Your task to perform on an android device: Empty the shopping cart on costco. Add razer thresher to the cart on costco Image 0: 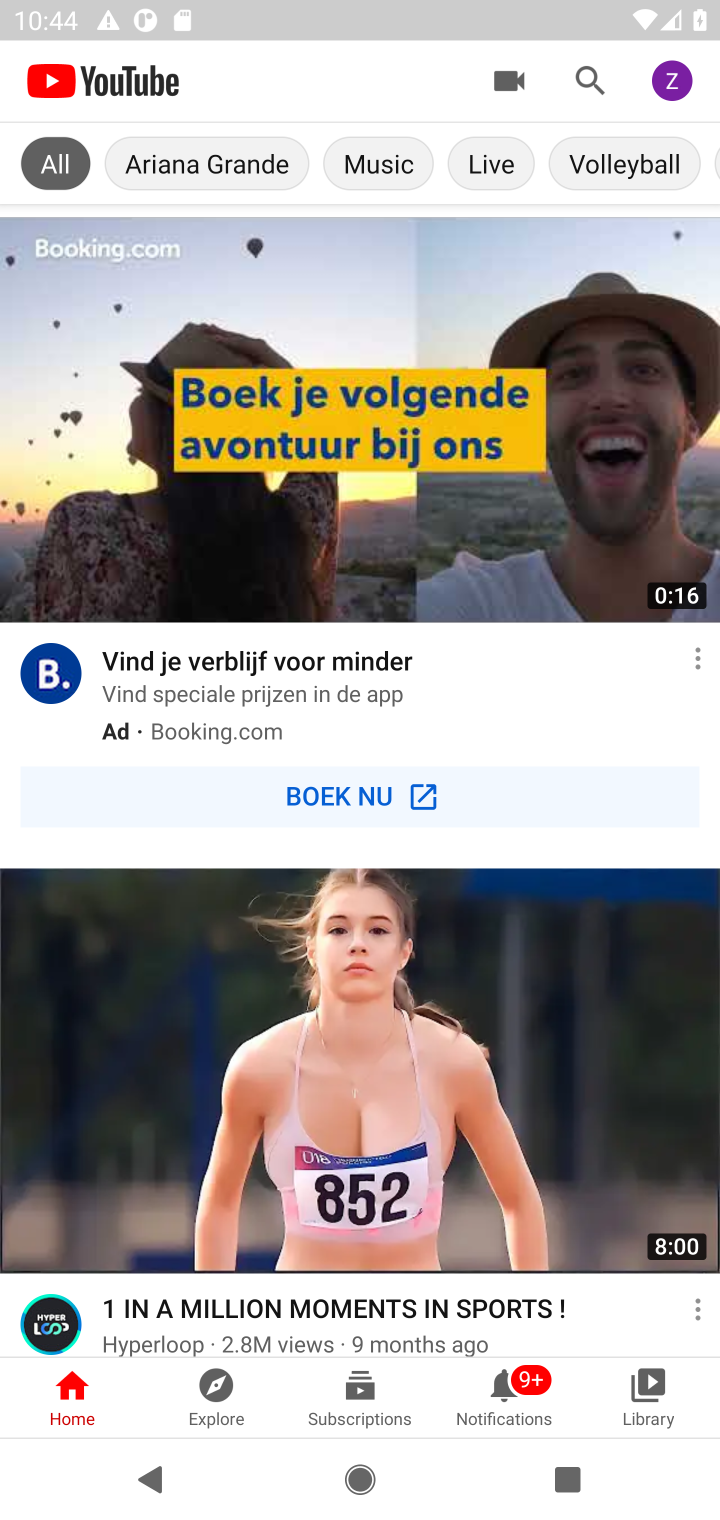
Step 0: press home button
Your task to perform on an android device: Empty the shopping cart on costco. Add razer thresher to the cart on costco Image 1: 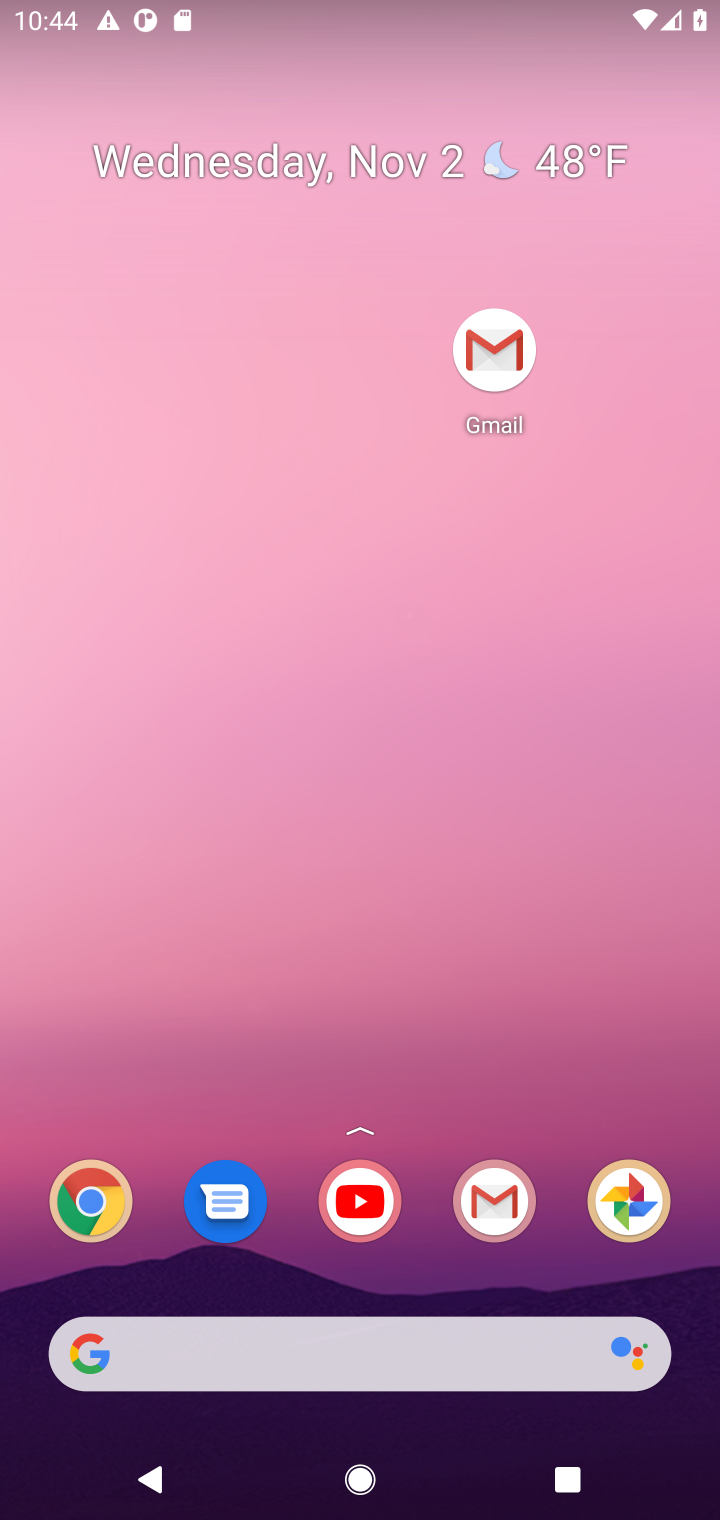
Step 1: drag from (361, 1027) to (355, 774)
Your task to perform on an android device: Empty the shopping cart on costco. Add razer thresher to the cart on costco Image 2: 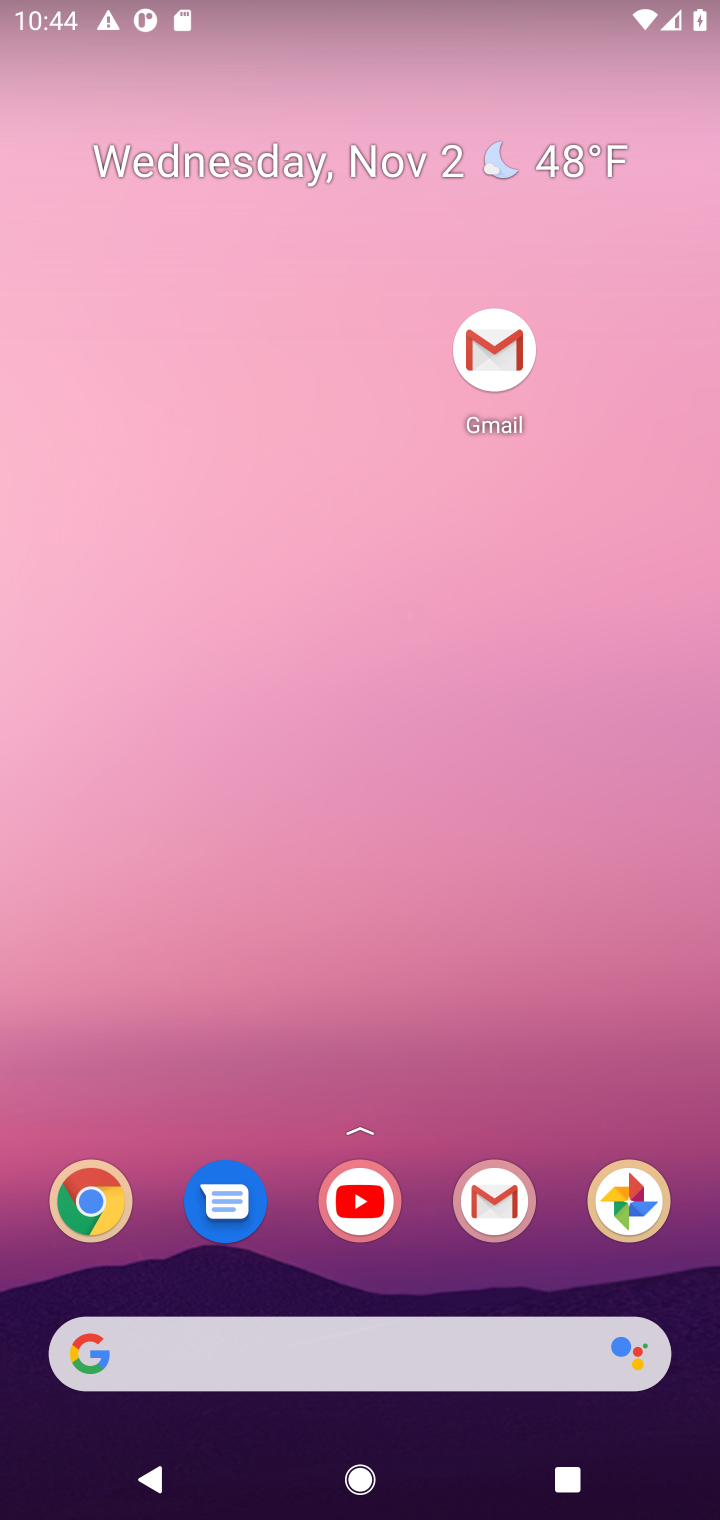
Step 2: drag from (419, 1159) to (464, 361)
Your task to perform on an android device: Empty the shopping cart on costco. Add razer thresher to the cart on costco Image 3: 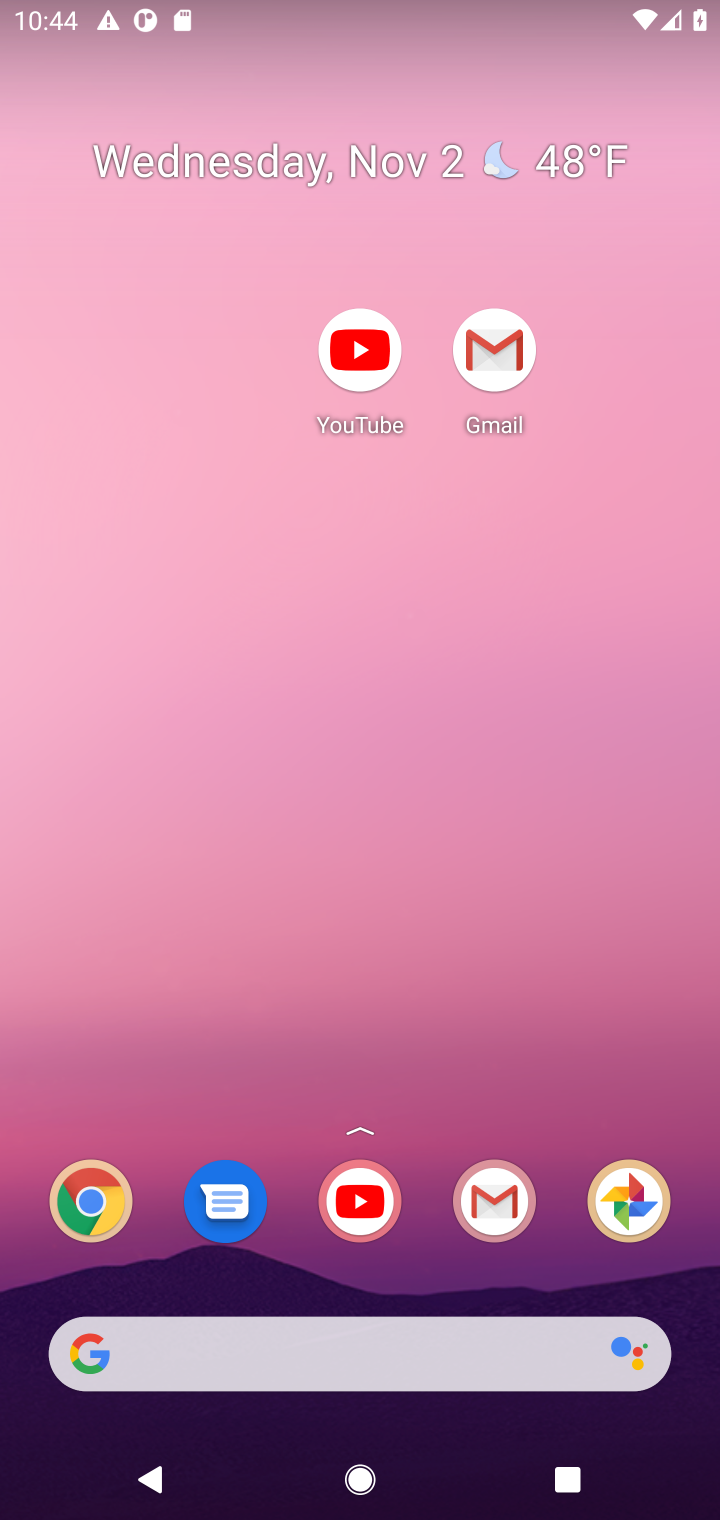
Step 3: drag from (418, 1261) to (308, 264)
Your task to perform on an android device: Empty the shopping cart on costco. Add razer thresher to the cart on costco Image 4: 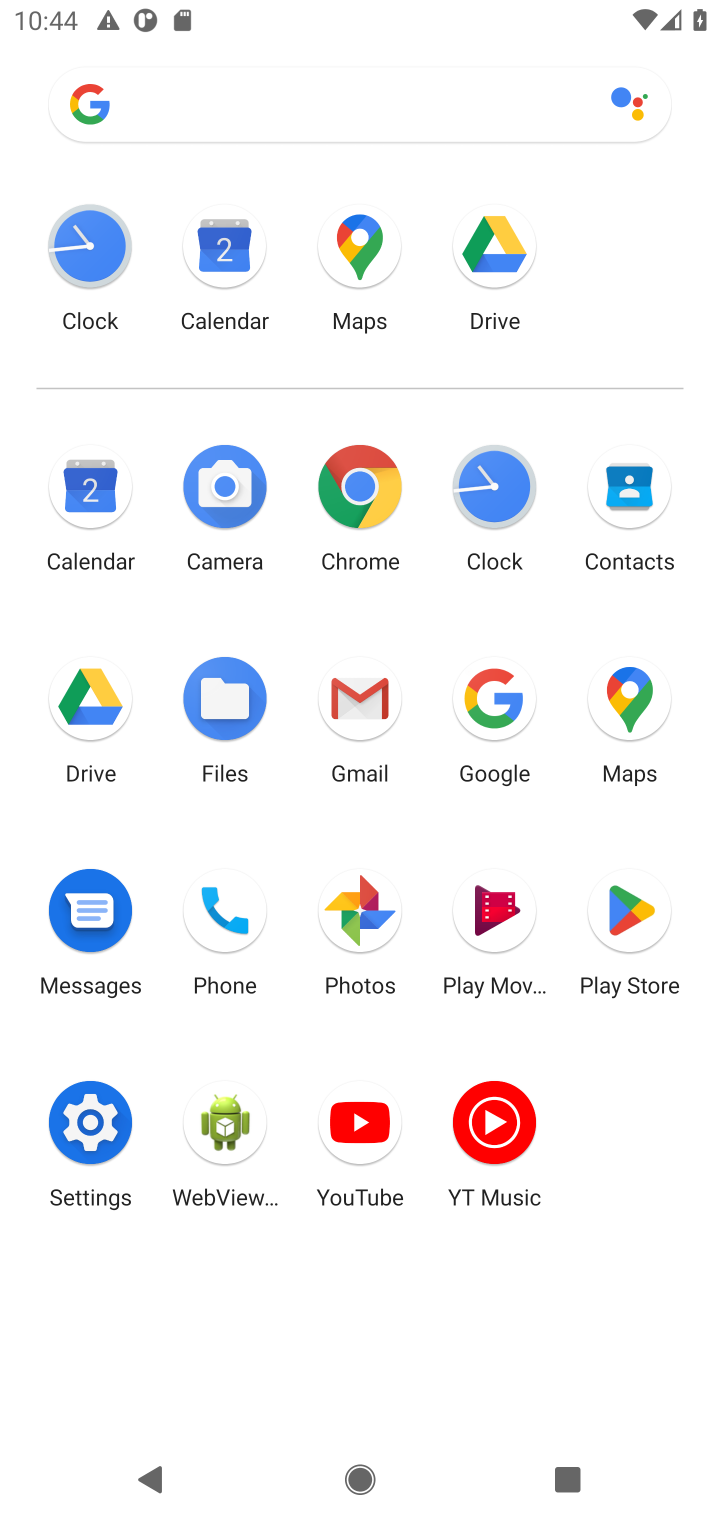
Step 4: click (347, 493)
Your task to perform on an android device: Empty the shopping cart on costco. Add razer thresher to the cart on costco Image 5: 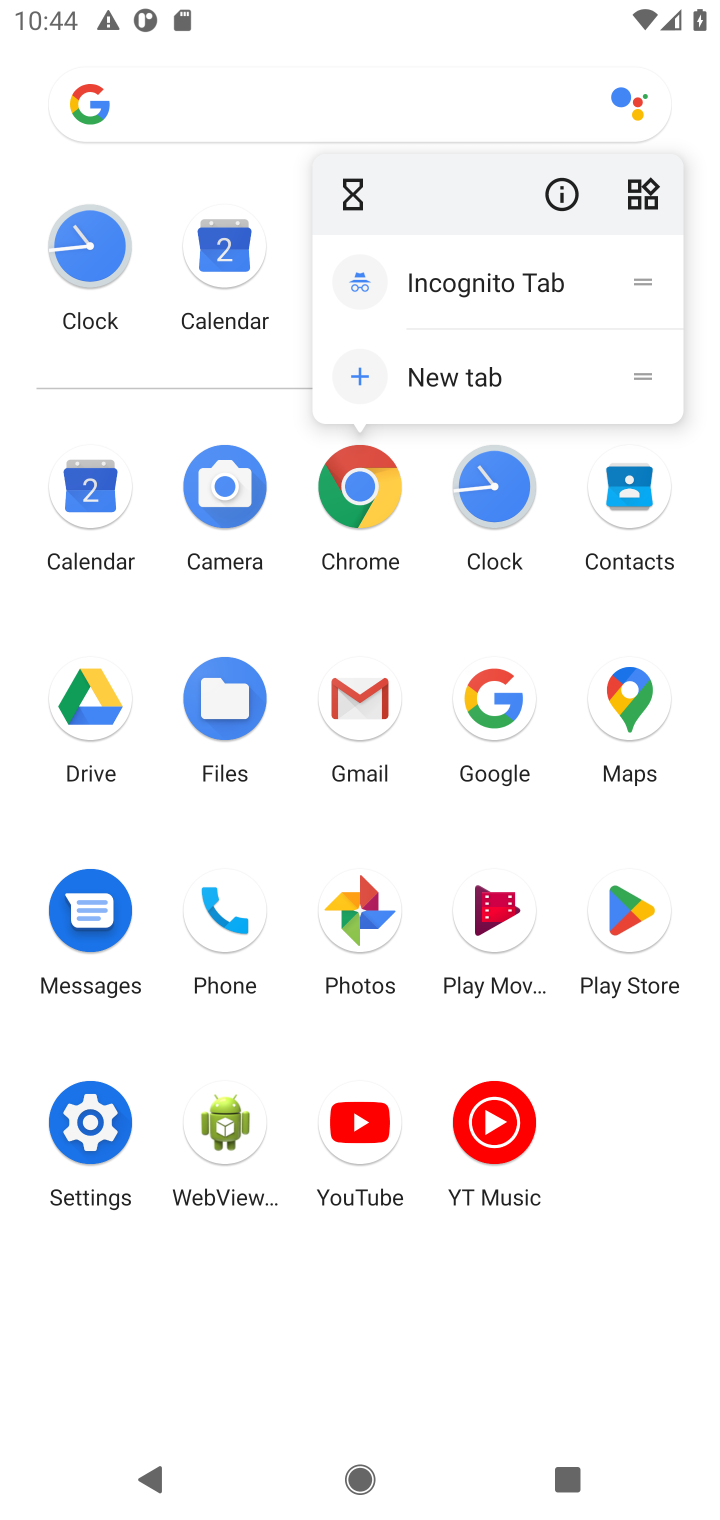
Step 5: click (364, 491)
Your task to perform on an android device: Empty the shopping cart on costco. Add razer thresher to the cart on costco Image 6: 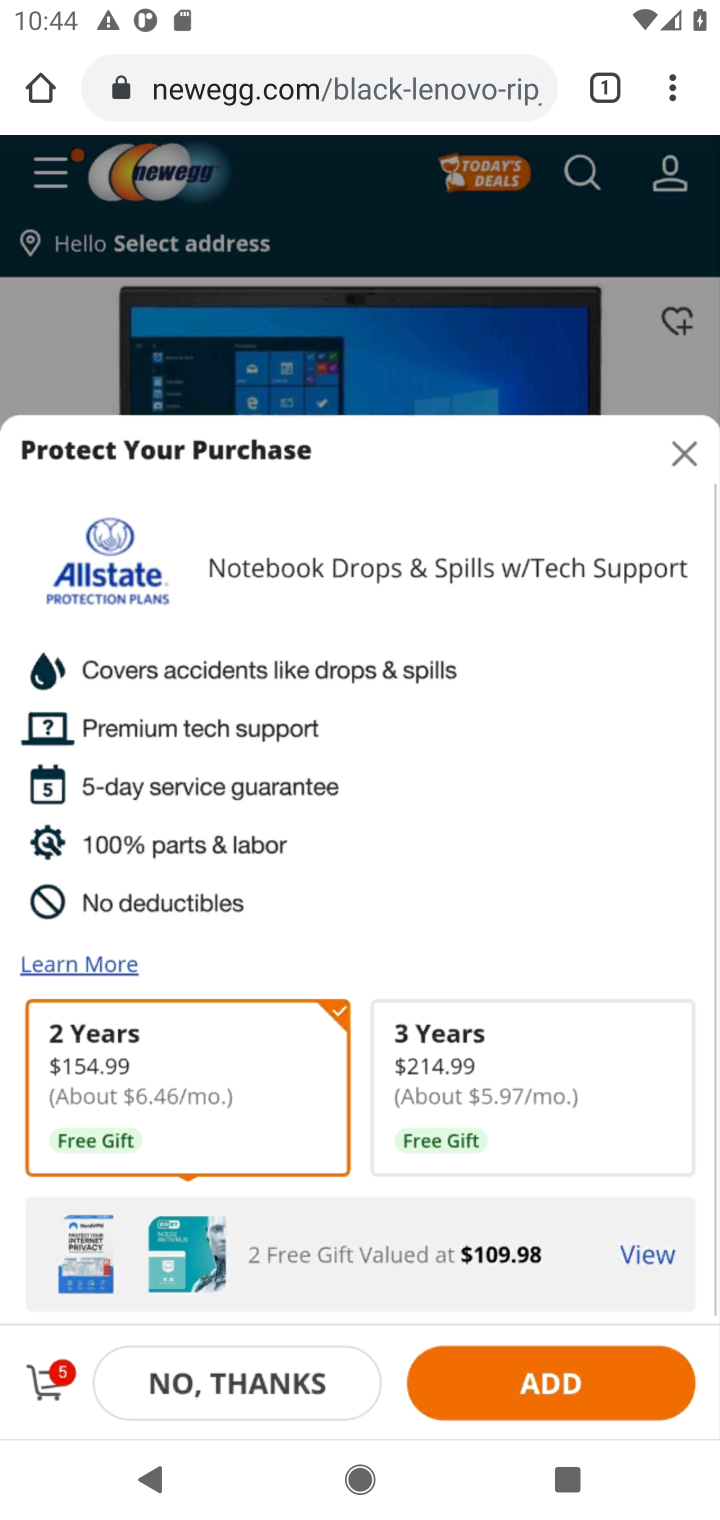
Step 6: click (330, 98)
Your task to perform on an android device: Empty the shopping cart on costco. Add razer thresher to the cart on costco Image 7: 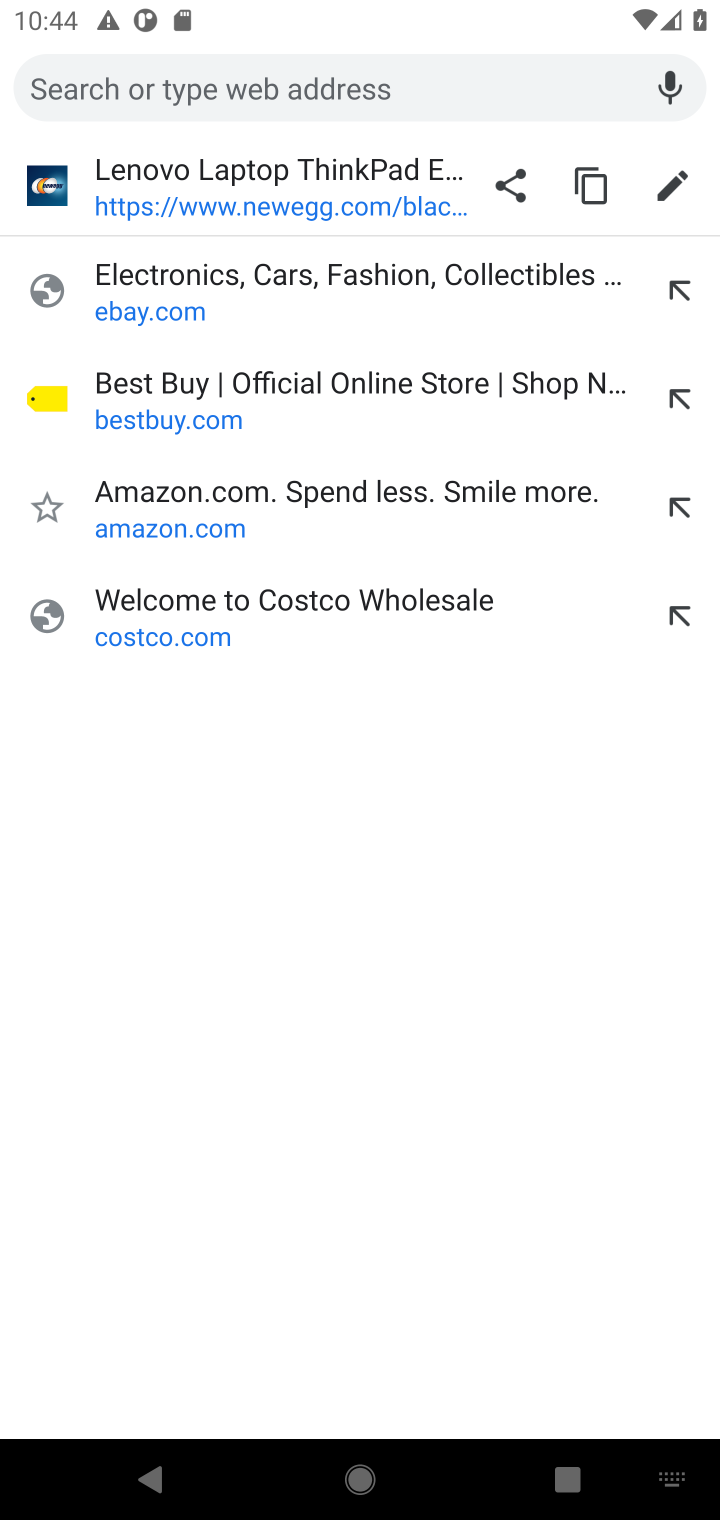
Step 7: type "costco.com"
Your task to perform on an android device: Empty the shopping cart on costco. Add razer thresher to the cart on costco Image 8: 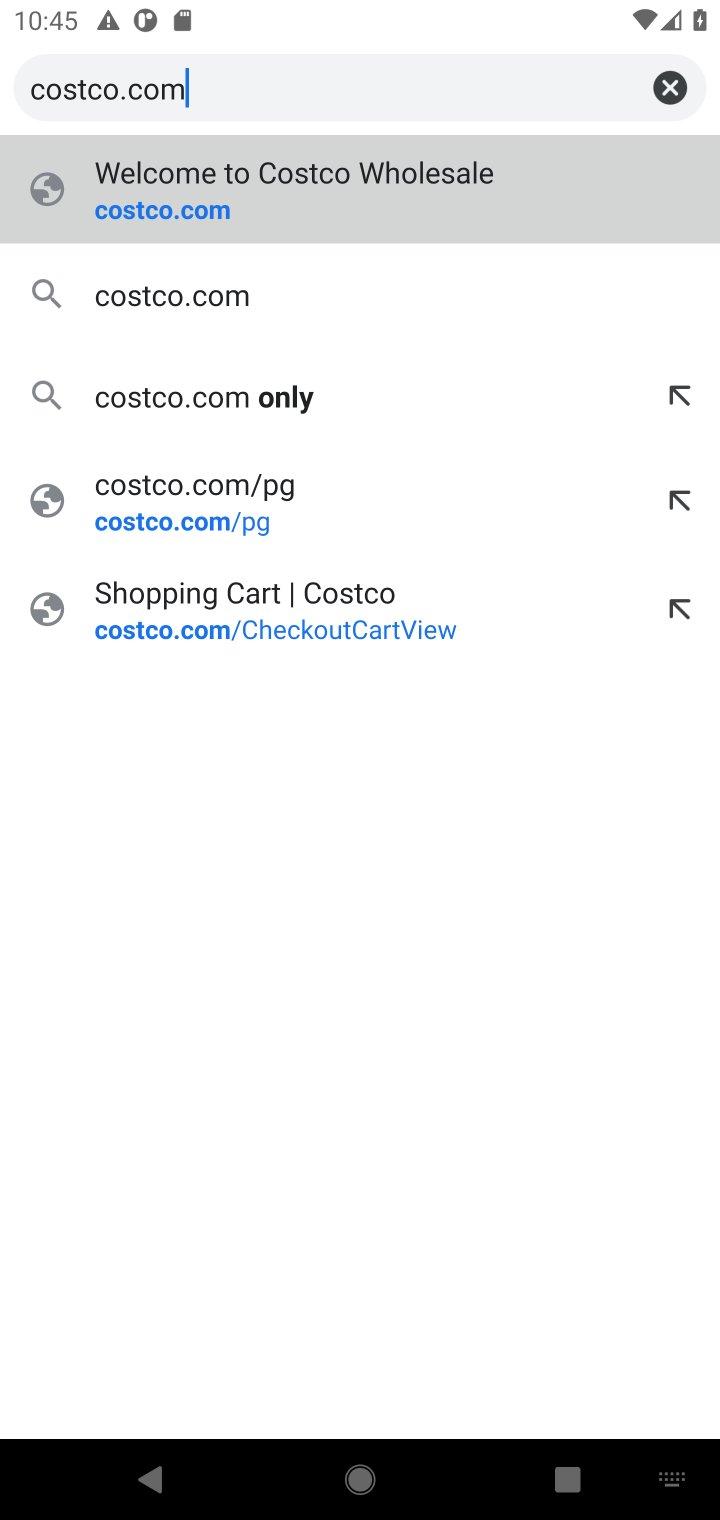
Step 8: press enter
Your task to perform on an android device: Empty the shopping cart on costco. Add razer thresher to the cart on costco Image 9: 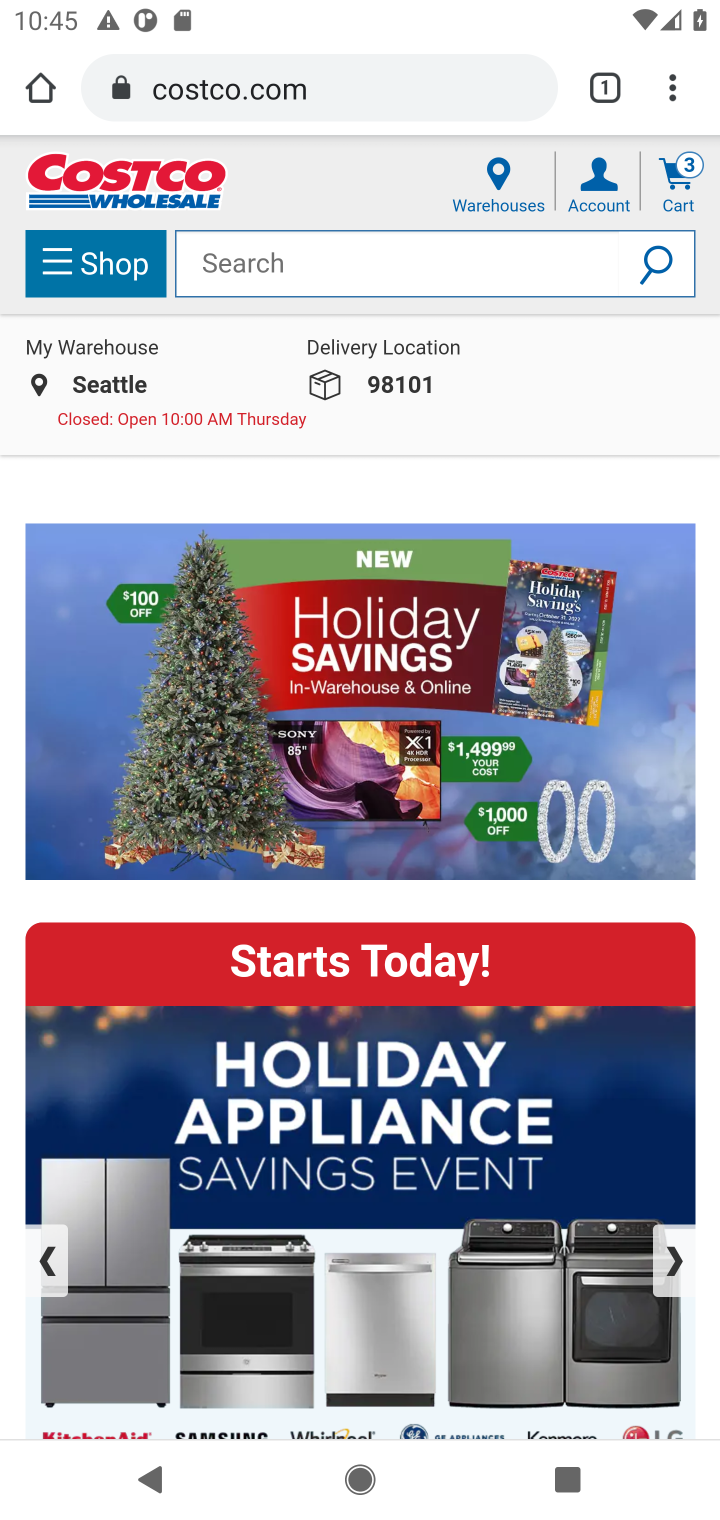
Step 9: click (685, 183)
Your task to perform on an android device: Empty the shopping cart on costco. Add razer thresher to the cart on costco Image 10: 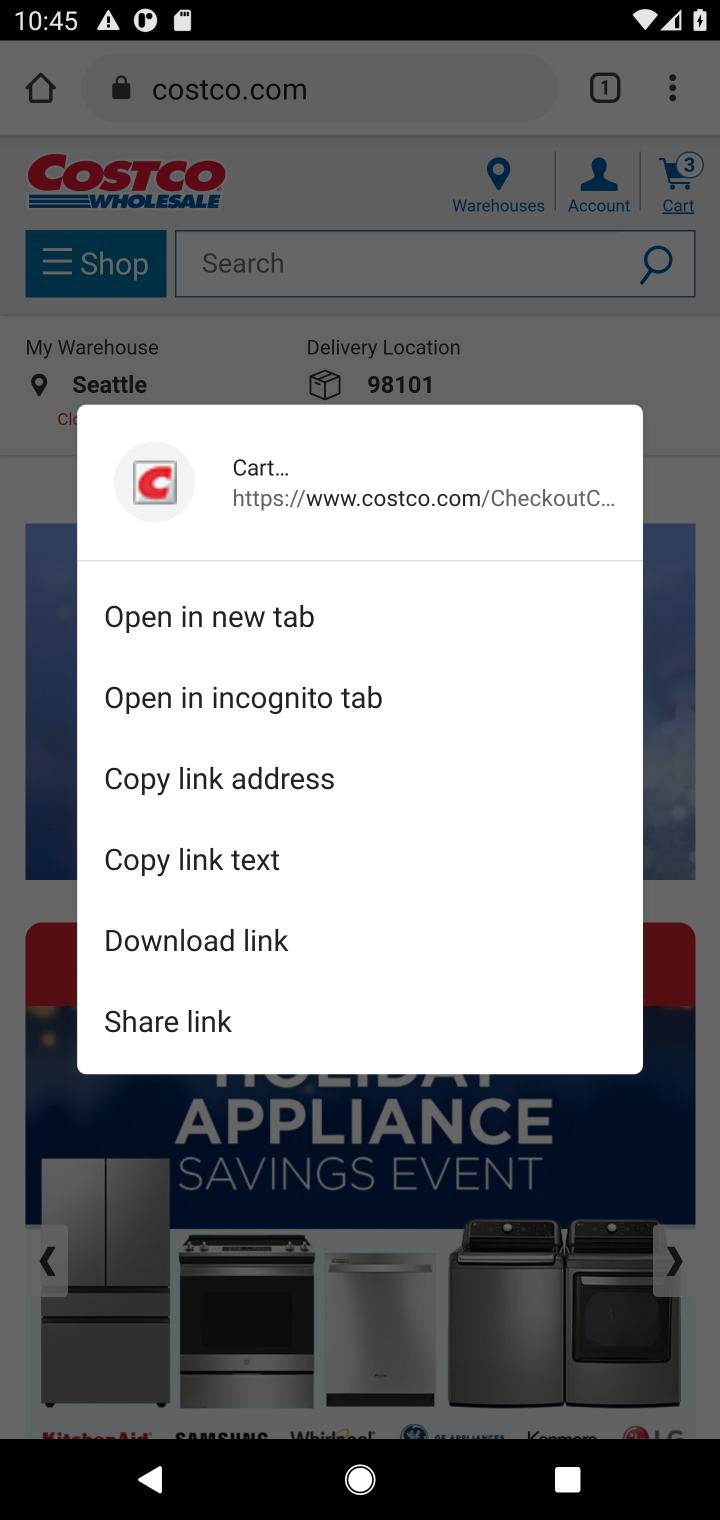
Step 10: click (685, 183)
Your task to perform on an android device: Empty the shopping cart on costco. Add razer thresher to the cart on costco Image 11: 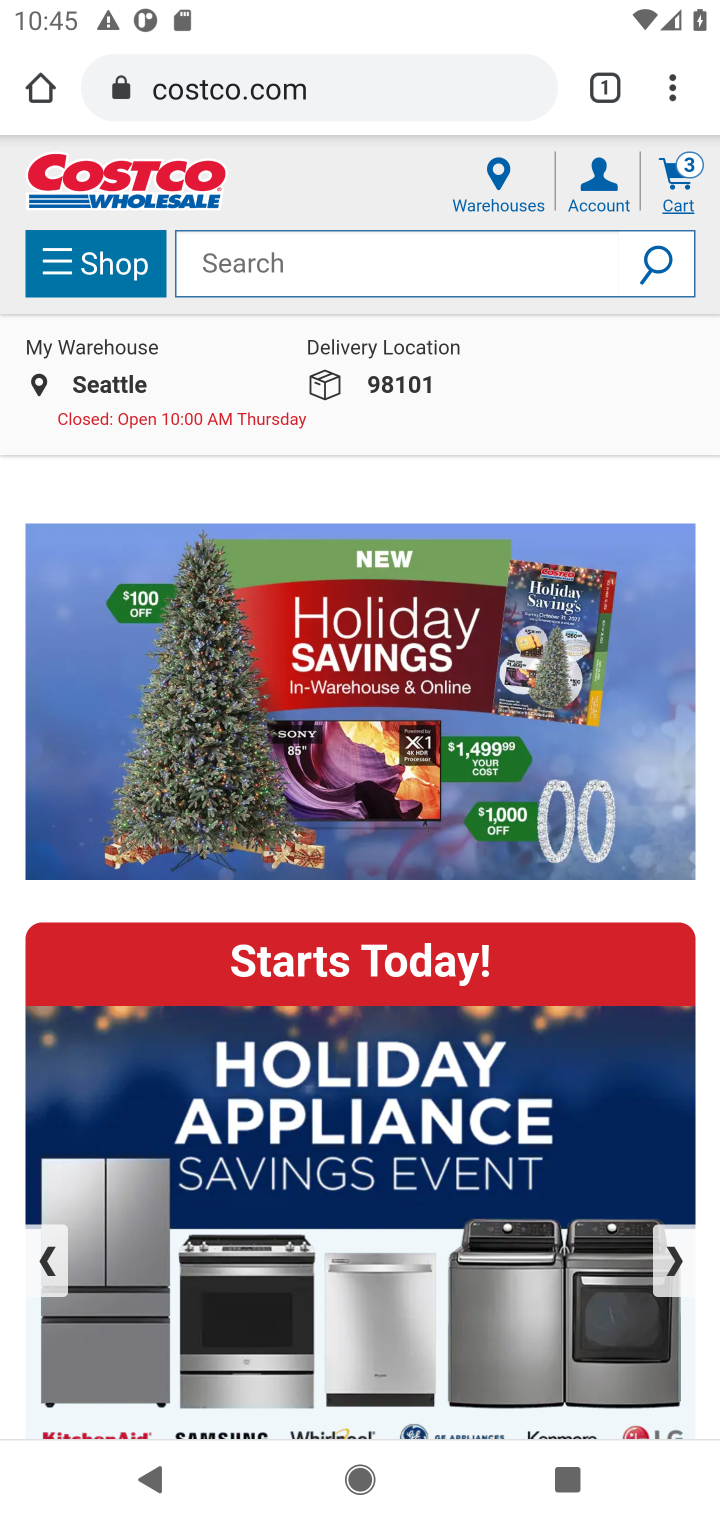
Step 11: click (685, 183)
Your task to perform on an android device: Empty the shopping cart on costco. Add razer thresher to the cart on costco Image 12: 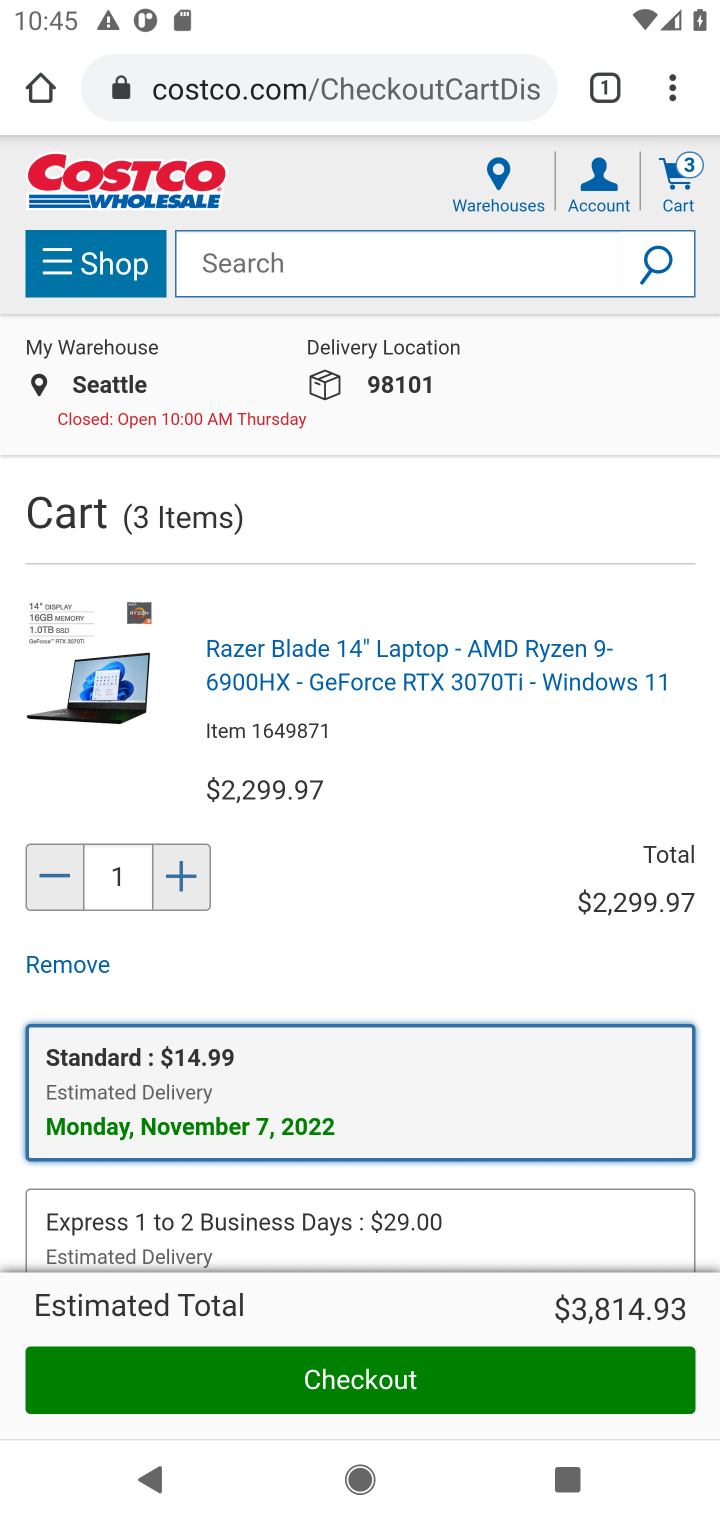
Step 12: click (82, 982)
Your task to perform on an android device: Empty the shopping cart on costco. Add razer thresher to the cart on costco Image 13: 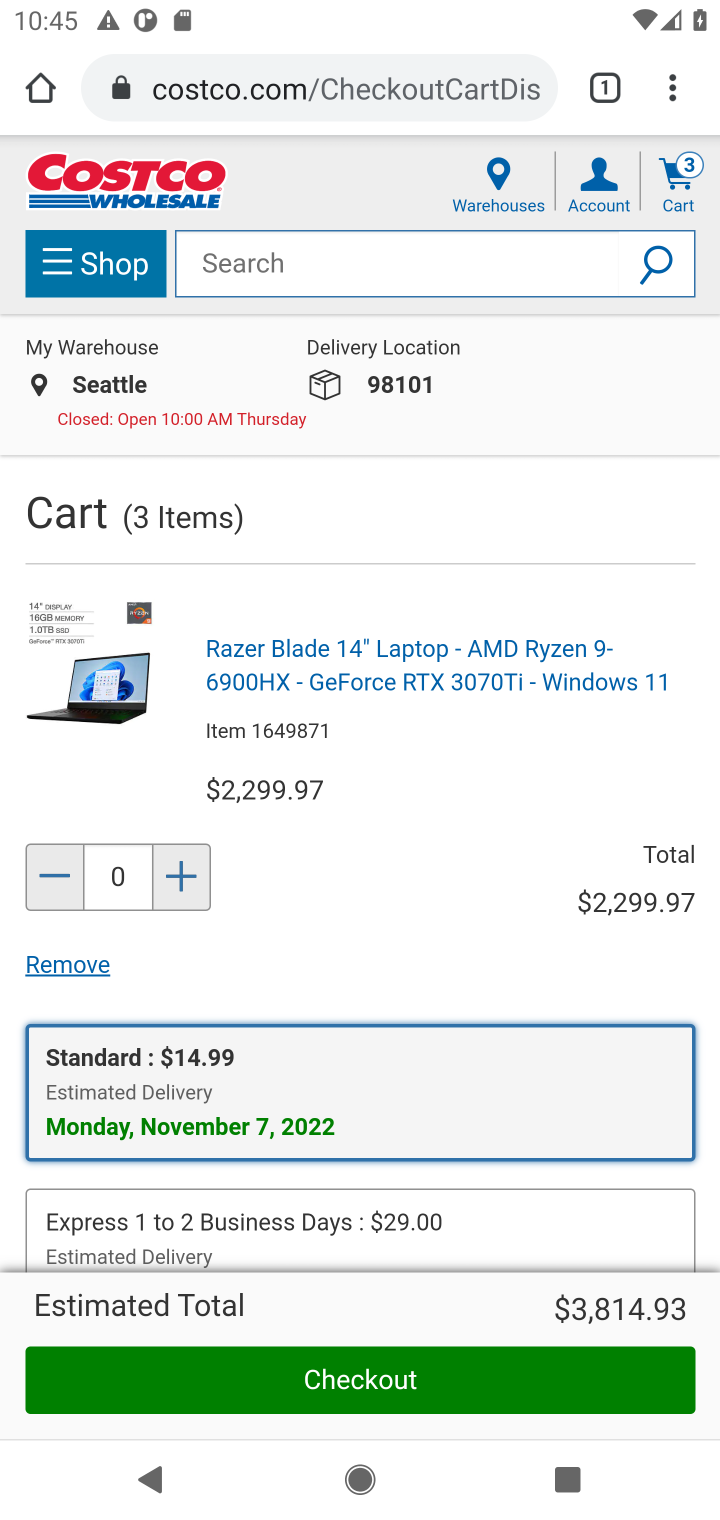
Step 13: click (81, 975)
Your task to perform on an android device: Empty the shopping cart on costco. Add razer thresher to the cart on costco Image 14: 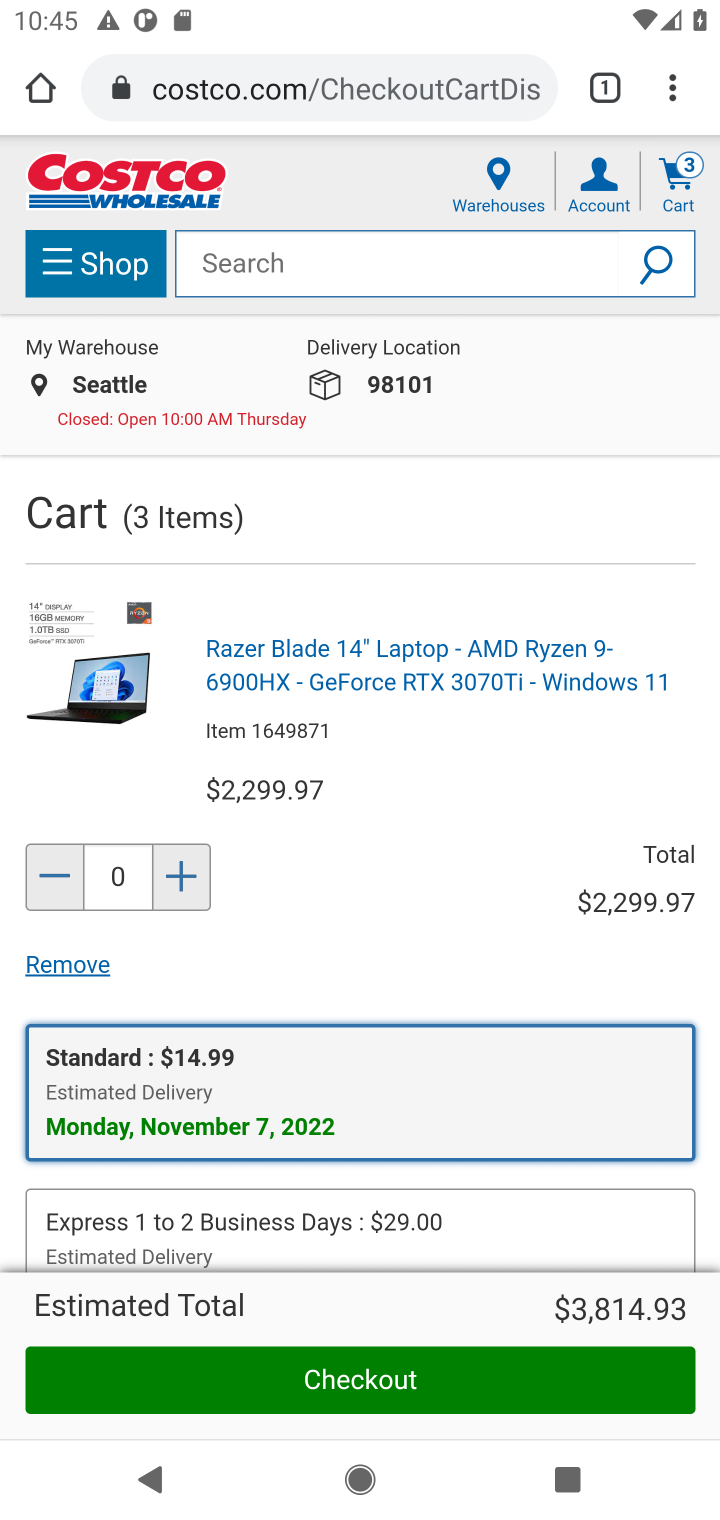
Step 14: click (73, 952)
Your task to perform on an android device: Empty the shopping cart on costco. Add razer thresher to the cart on costco Image 15: 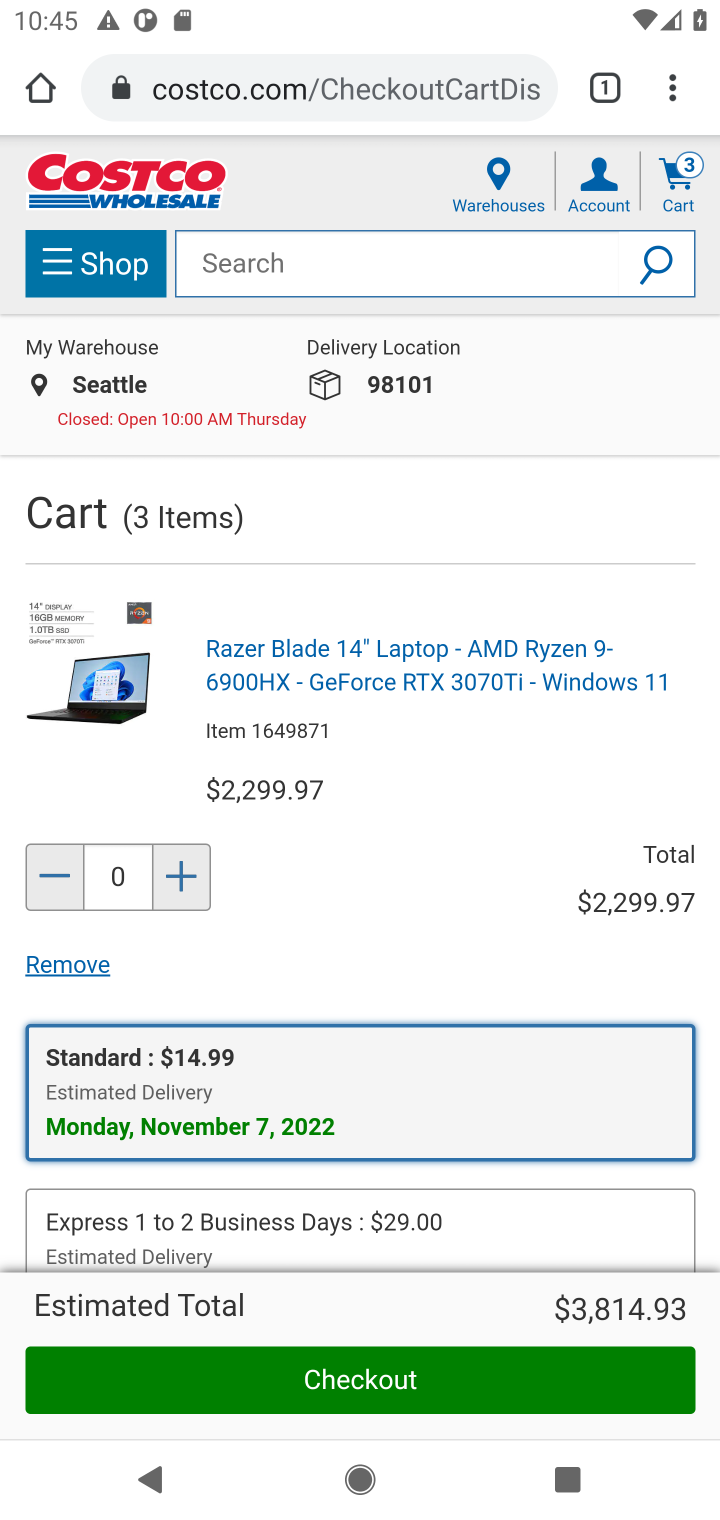
Step 15: click (69, 960)
Your task to perform on an android device: Empty the shopping cart on costco. Add razer thresher to the cart on costco Image 16: 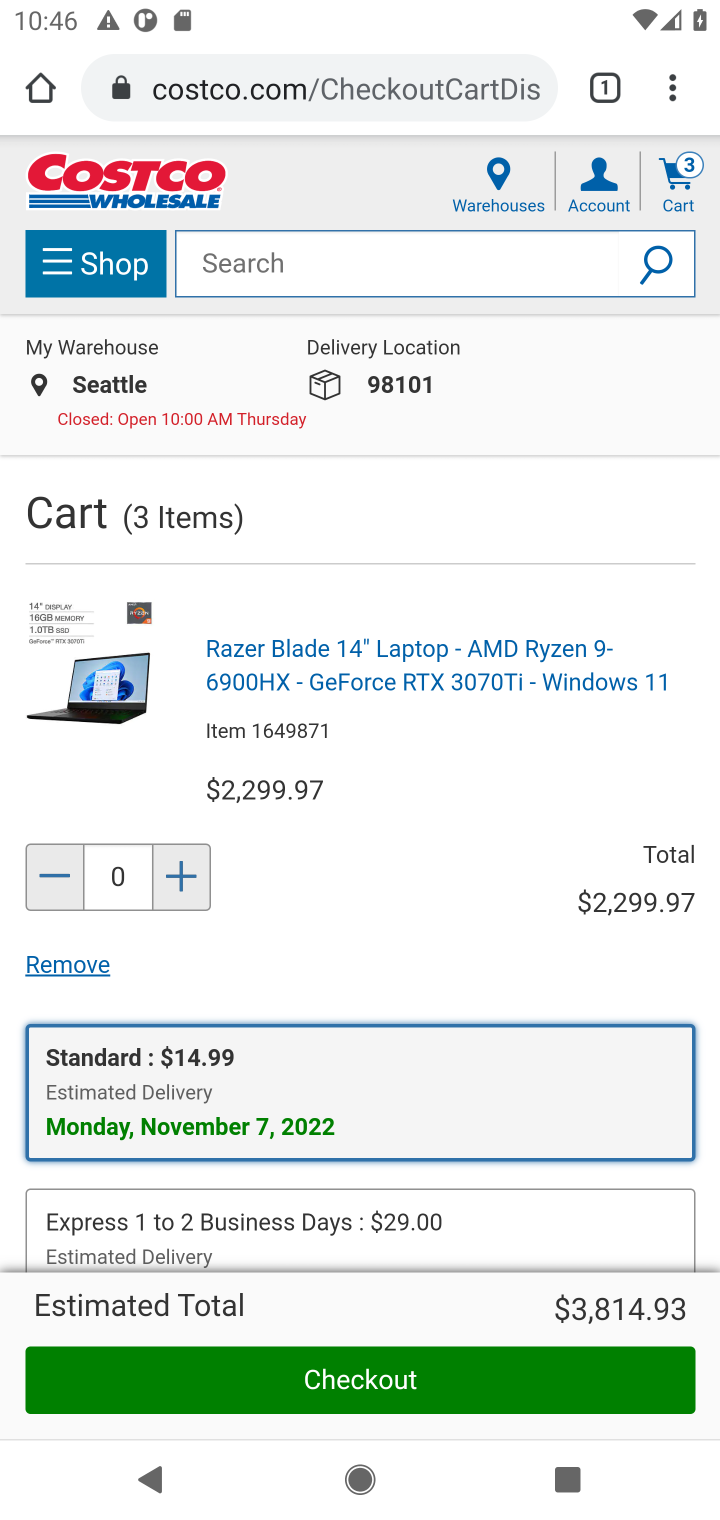
Step 16: click (69, 960)
Your task to perform on an android device: Empty the shopping cart on costco. Add razer thresher to the cart on costco Image 17: 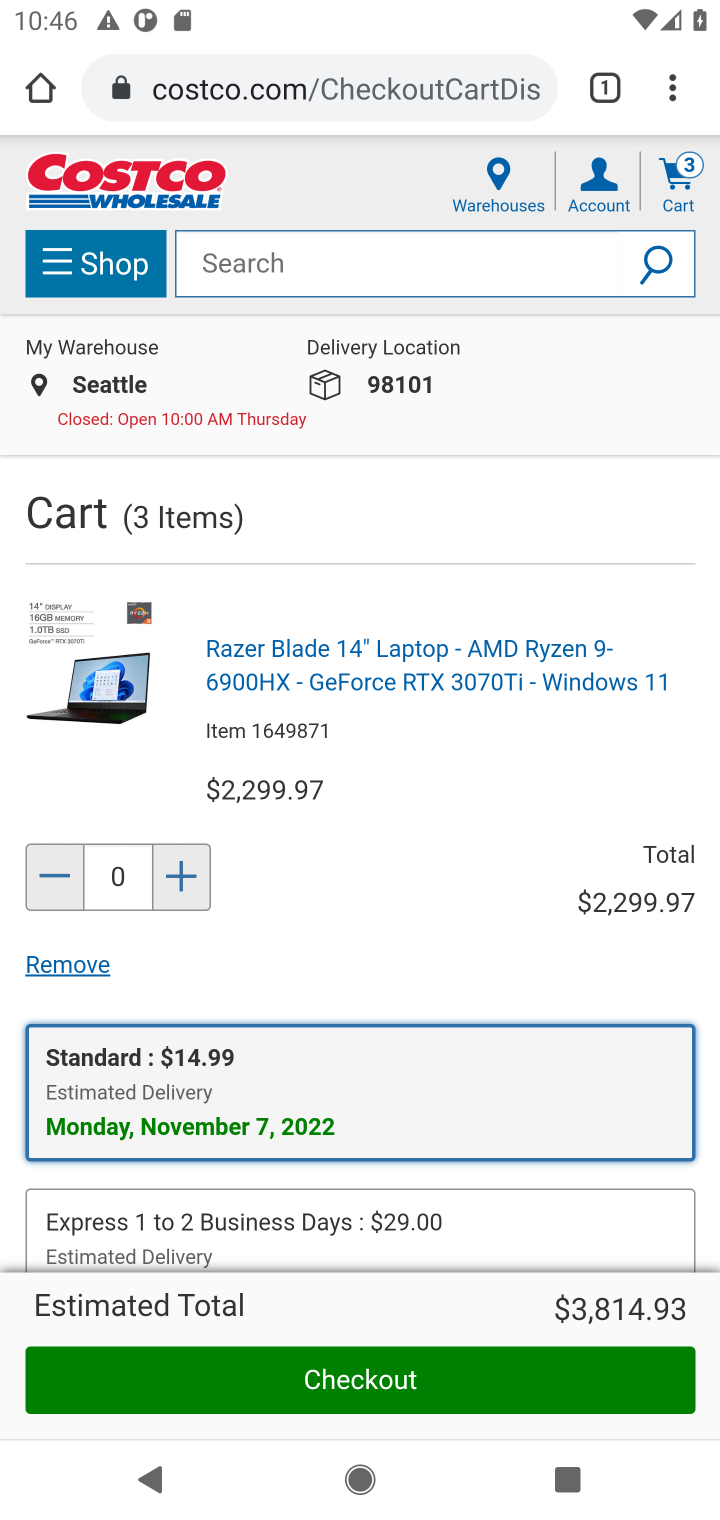
Step 17: click (69, 960)
Your task to perform on an android device: Empty the shopping cart on costco. Add razer thresher to the cart on costco Image 18: 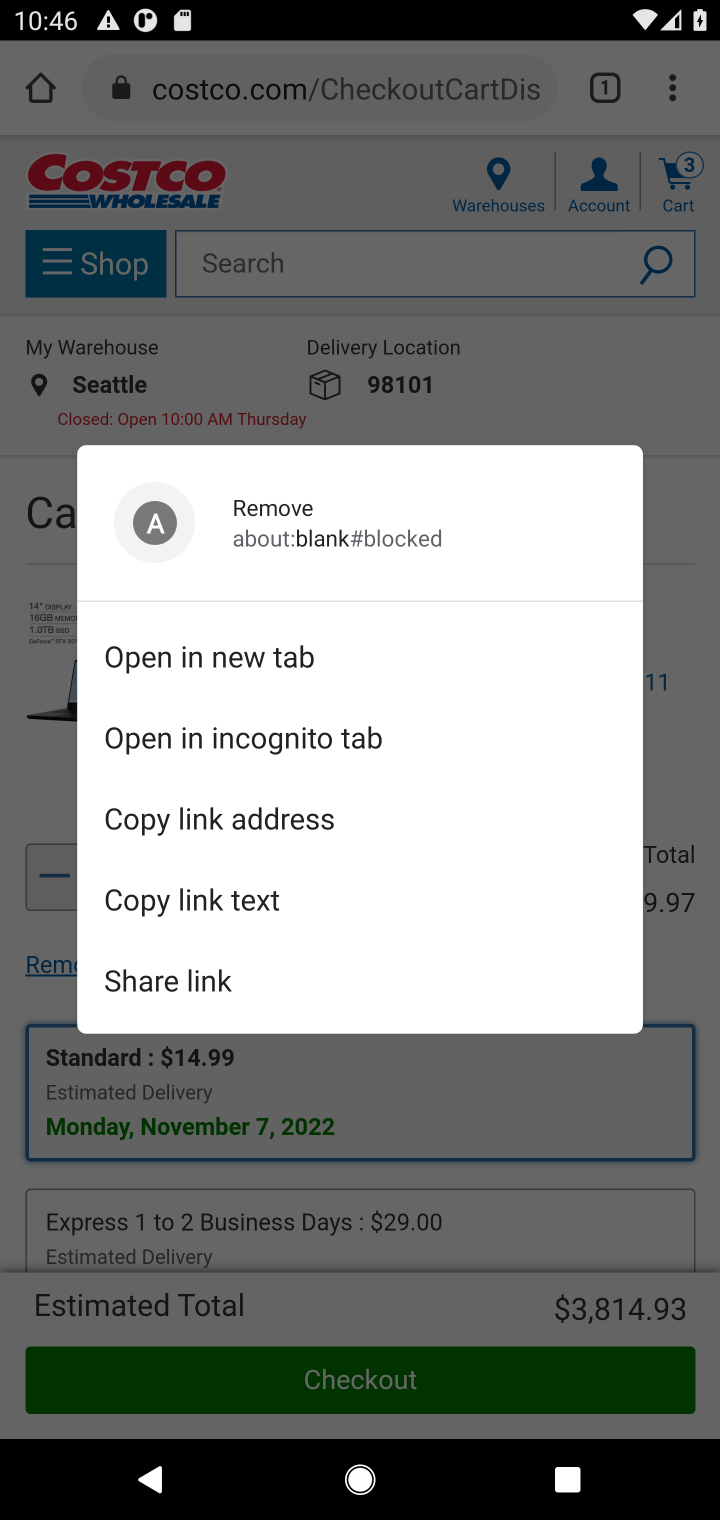
Step 18: click (27, 985)
Your task to perform on an android device: Empty the shopping cart on costco. Add razer thresher to the cart on costco Image 19: 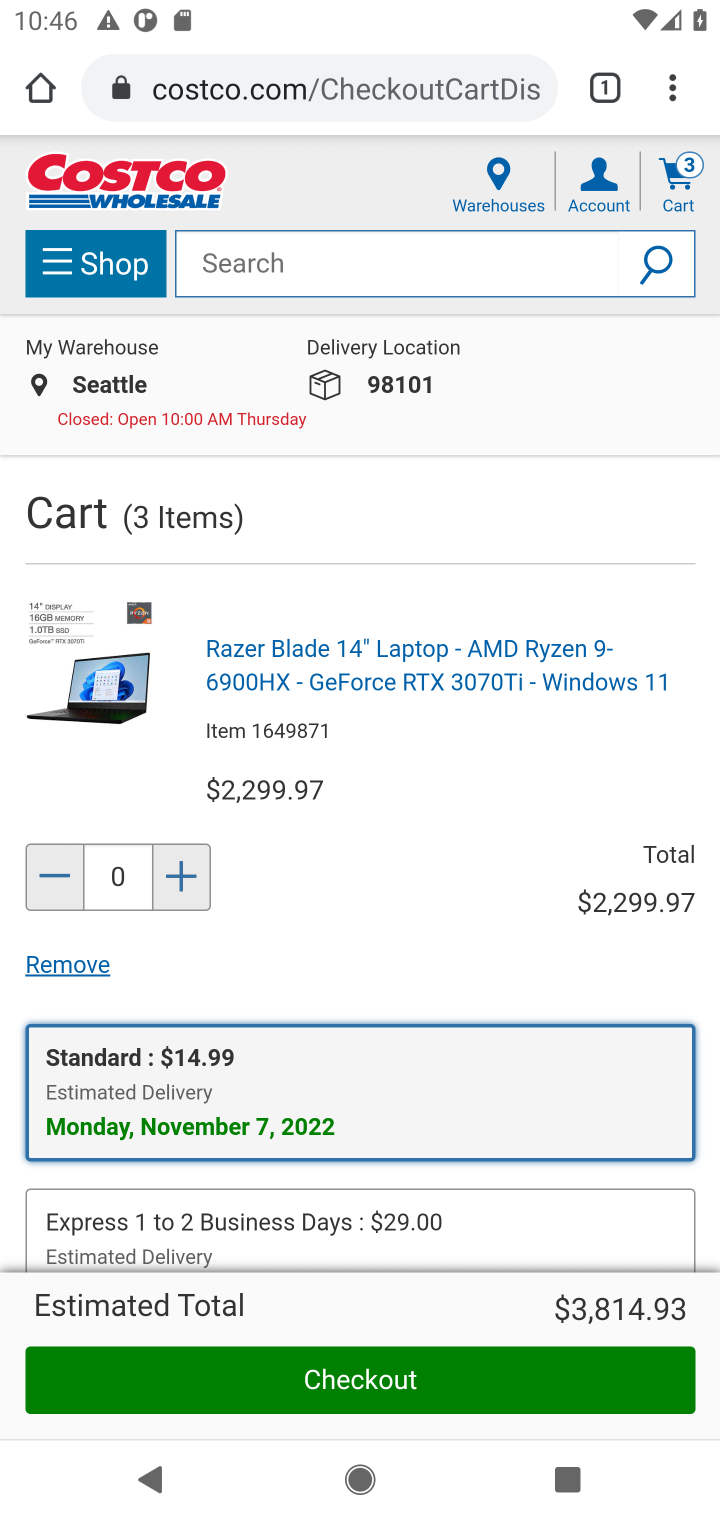
Step 19: click (45, 972)
Your task to perform on an android device: Empty the shopping cart on costco. Add razer thresher to the cart on costco Image 20: 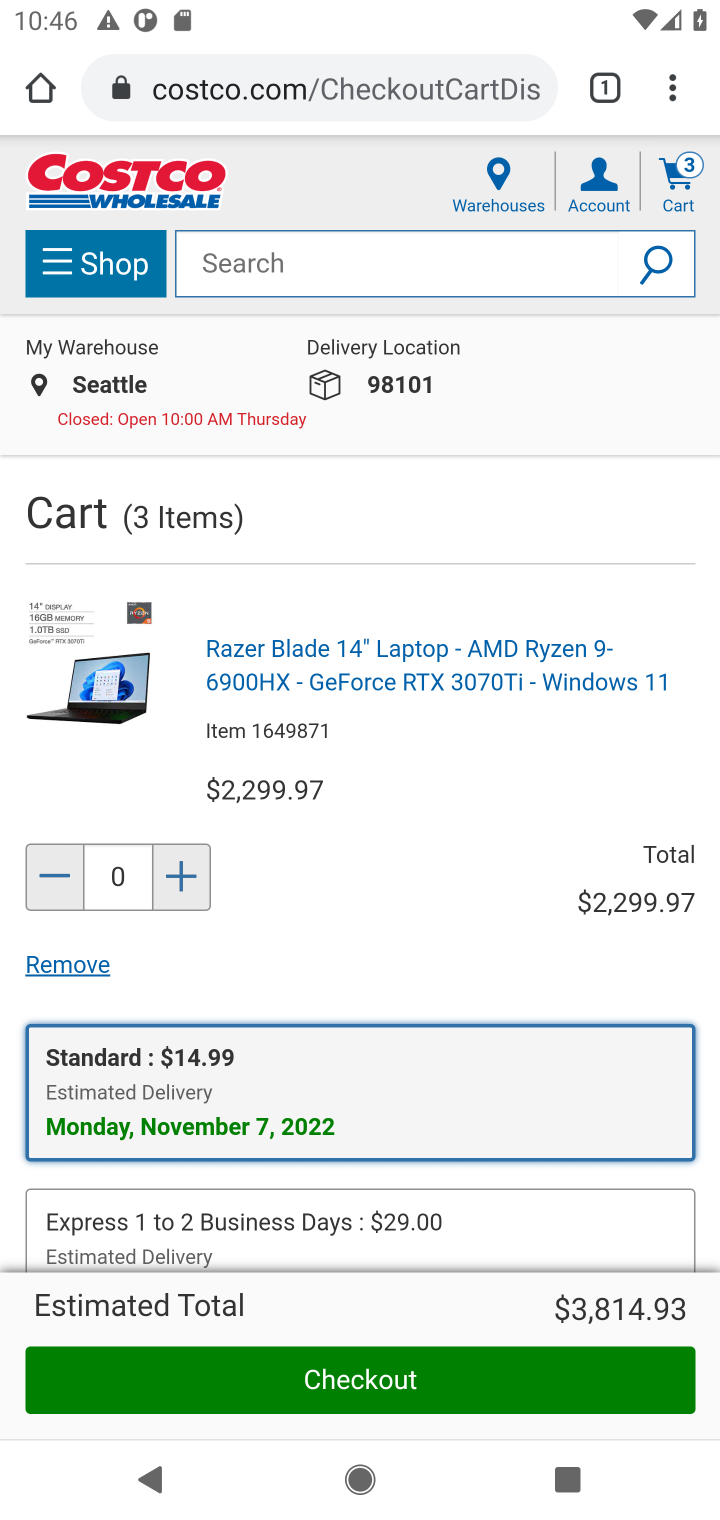
Step 20: click (45, 972)
Your task to perform on an android device: Empty the shopping cart on costco. Add razer thresher to the cart on costco Image 21: 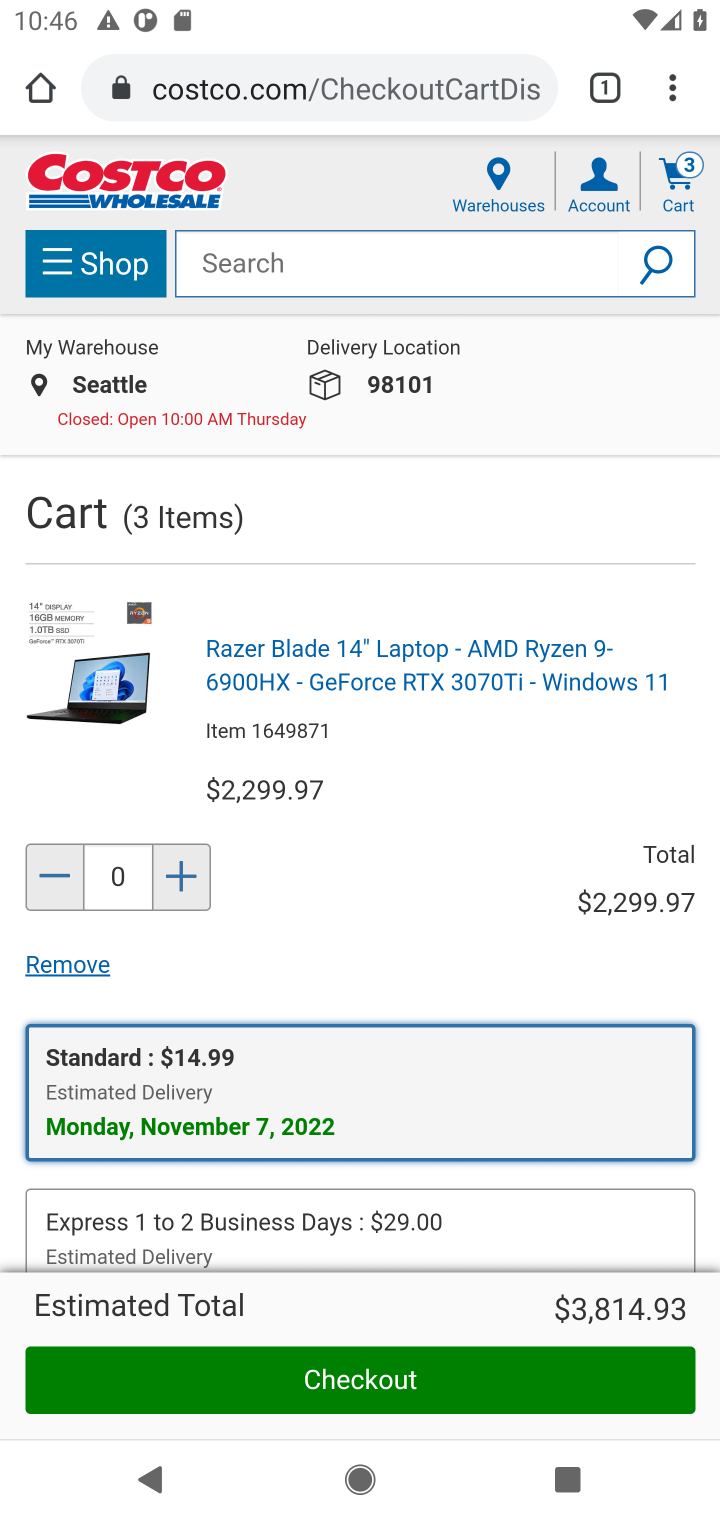
Step 21: click (56, 895)
Your task to perform on an android device: Empty the shopping cart on costco. Add razer thresher to the cart on costco Image 22: 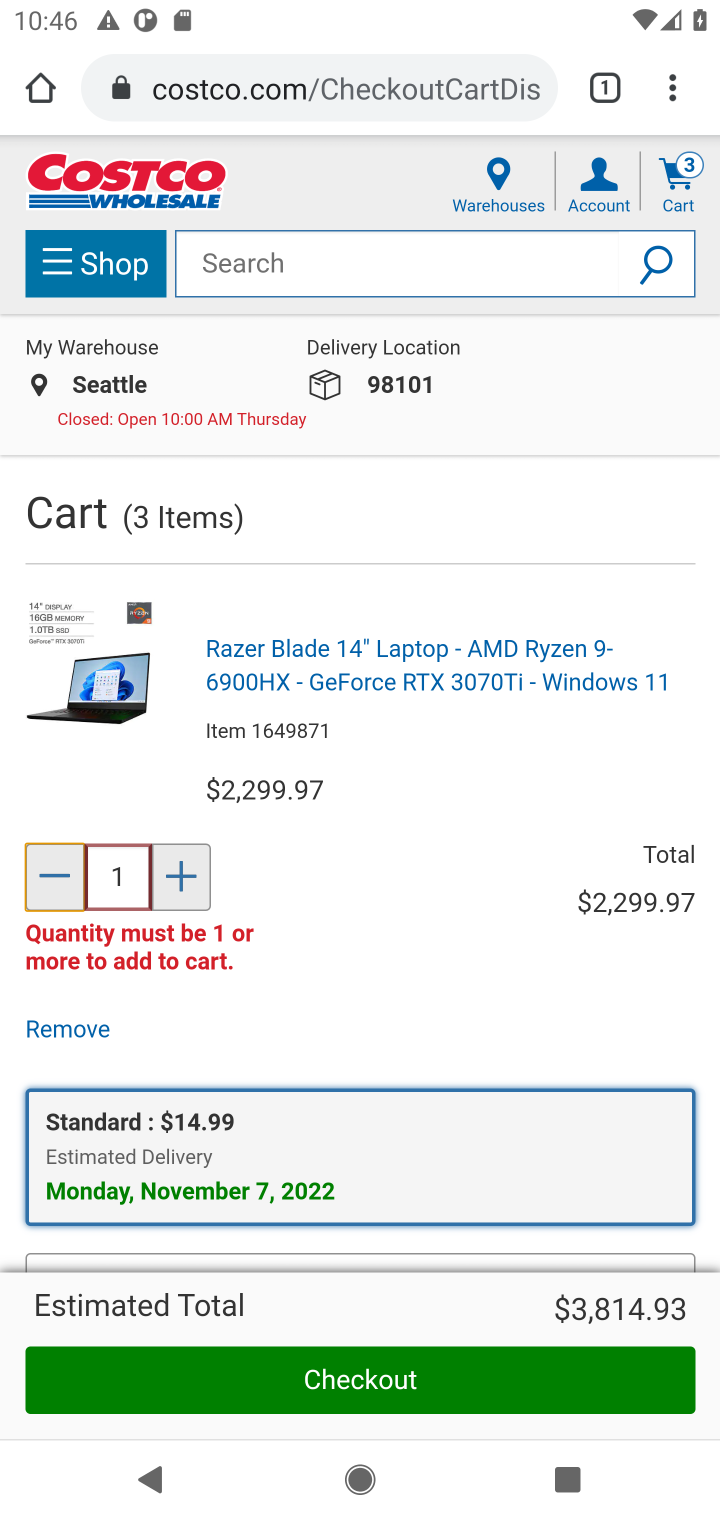
Step 22: drag from (473, 1020) to (379, 1084)
Your task to perform on an android device: Empty the shopping cart on costco. Add razer thresher to the cart on costco Image 23: 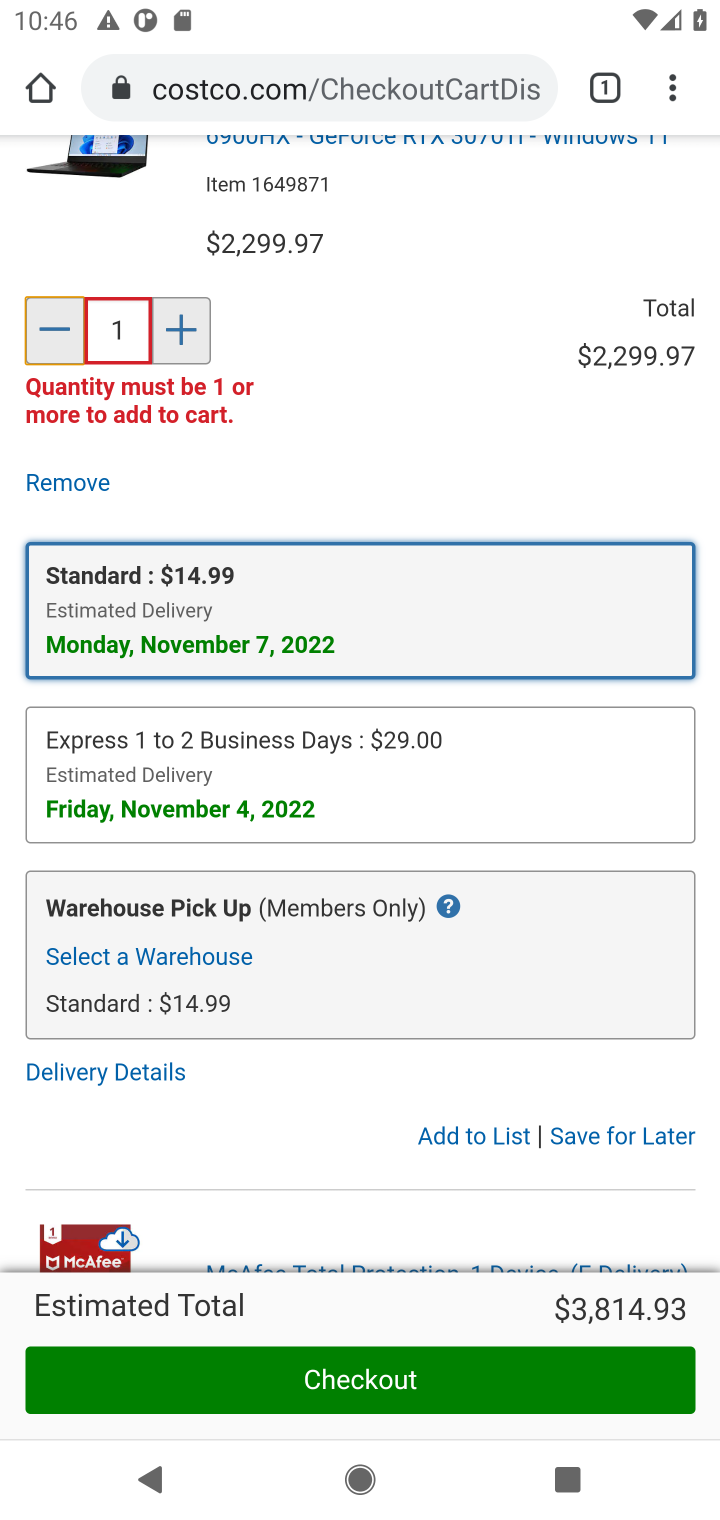
Step 23: click (54, 481)
Your task to perform on an android device: Empty the shopping cart on costco. Add razer thresher to the cart on costco Image 24: 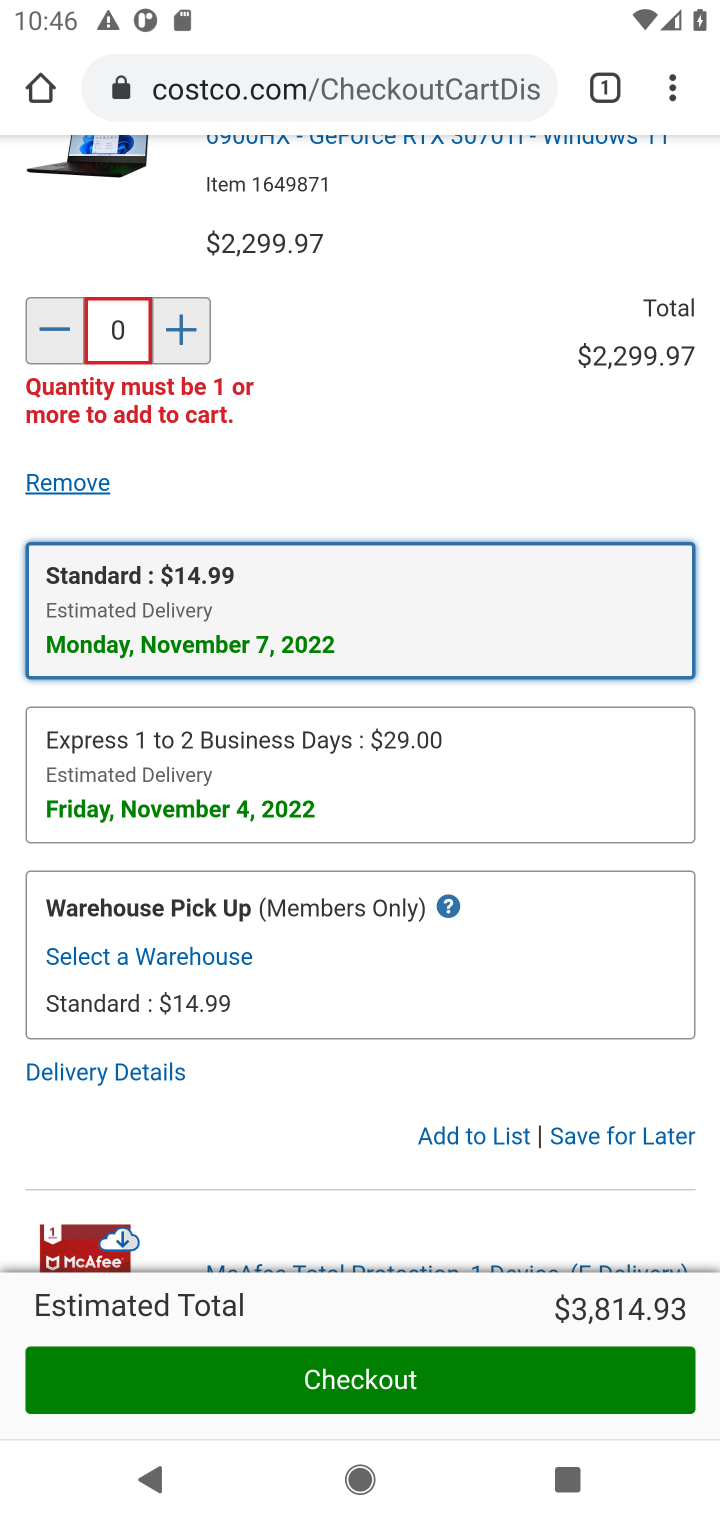
Step 24: task complete